Your task to perform on an android device: turn off data saver in the chrome app Image 0: 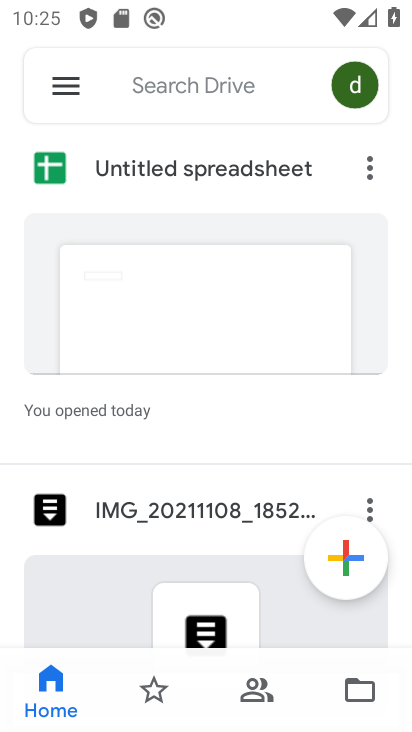
Step 0: press home button
Your task to perform on an android device: turn off data saver in the chrome app Image 1: 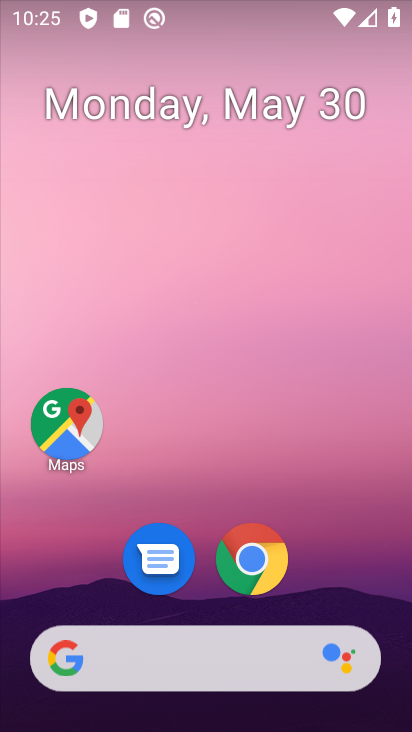
Step 1: click (267, 583)
Your task to perform on an android device: turn off data saver in the chrome app Image 2: 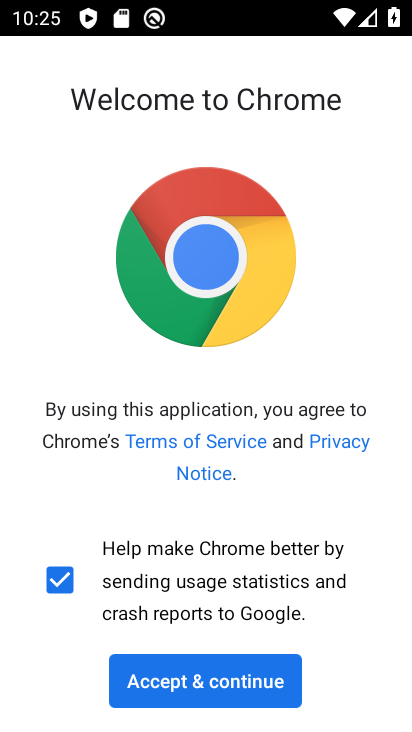
Step 2: click (241, 670)
Your task to perform on an android device: turn off data saver in the chrome app Image 3: 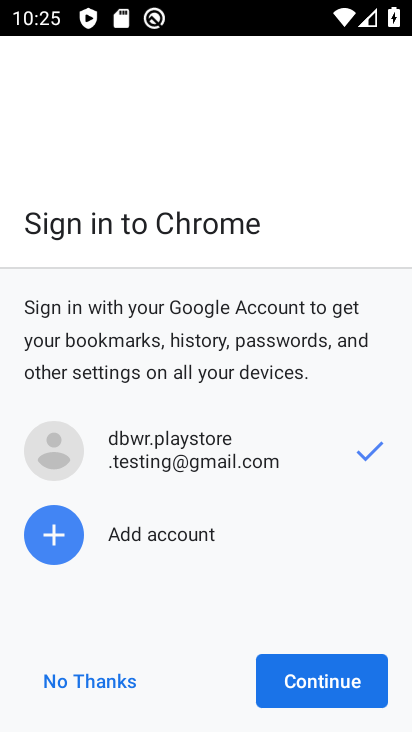
Step 3: click (330, 696)
Your task to perform on an android device: turn off data saver in the chrome app Image 4: 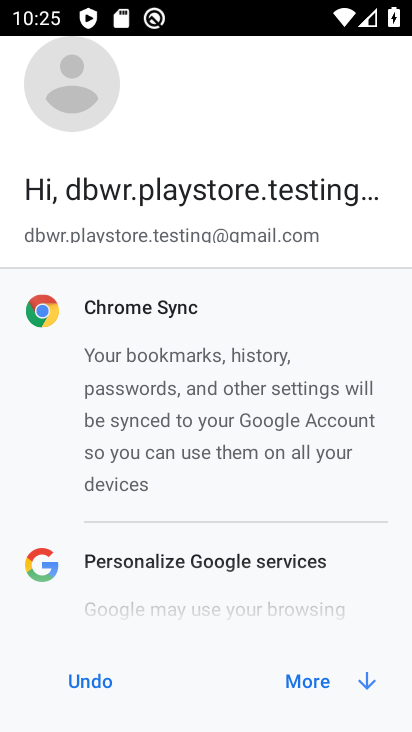
Step 4: click (330, 692)
Your task to perform on an android device: turn off data saver in the chrome app Image 5: 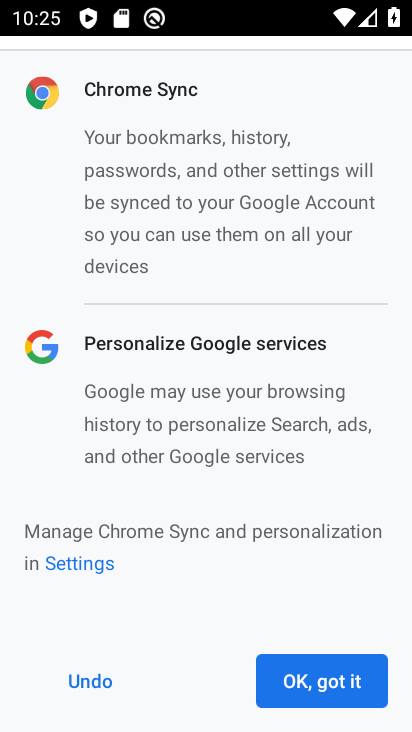
Step 5: click (350, 684)
Your task to perform on an android device: turn off data saver in the chrome app Image 6: 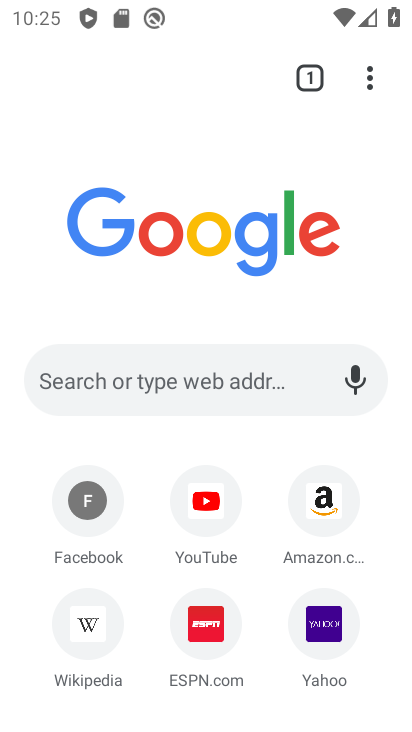
Step 6: click (379, 92)
Your task to perform on an android device: turn off data saver in the chrome app Image 7: 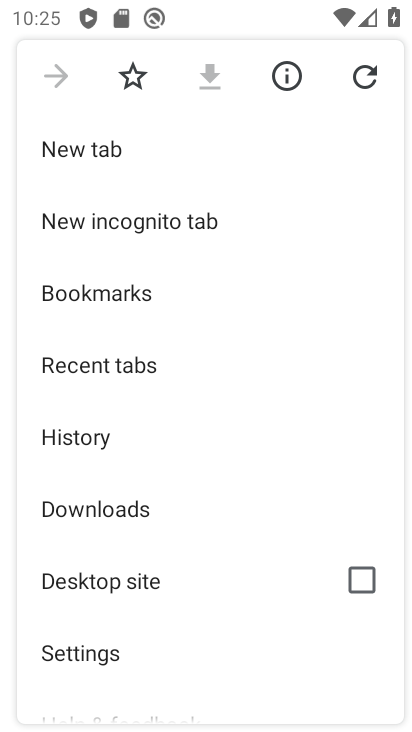
Step 7: click (95, 658)
Your task to perform on an android device: turn off data saver in the chrome app Image 8: 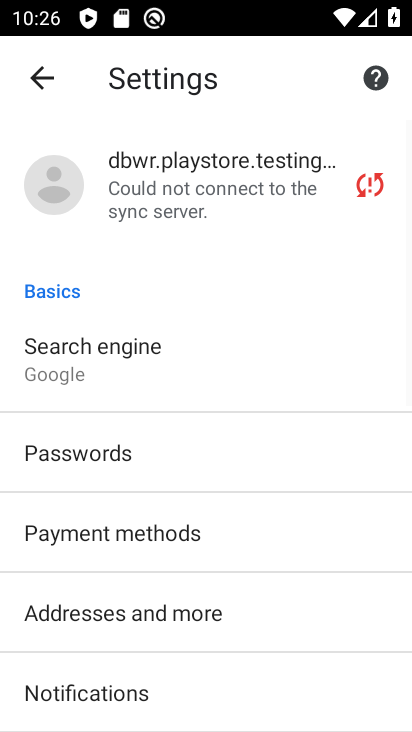
Step 8: drag from (135, 691) to (111, 184)
Your task to perform on an android device: turn off data saver in the chrome app Image 9: 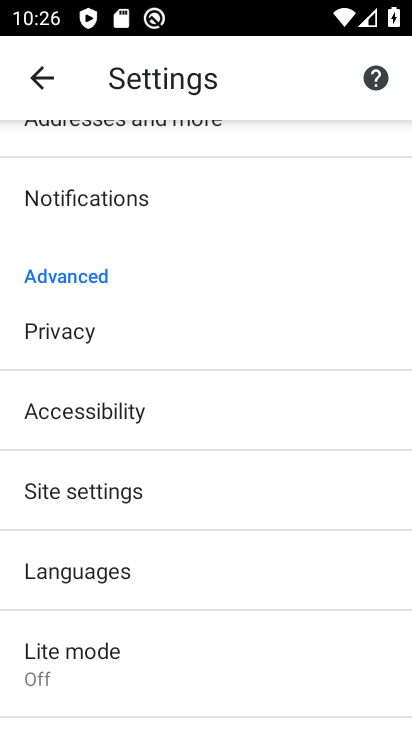
Step 9: click (108, 675)
Your task to perform on an android device: turn off data saver in the chrome app Image 10: 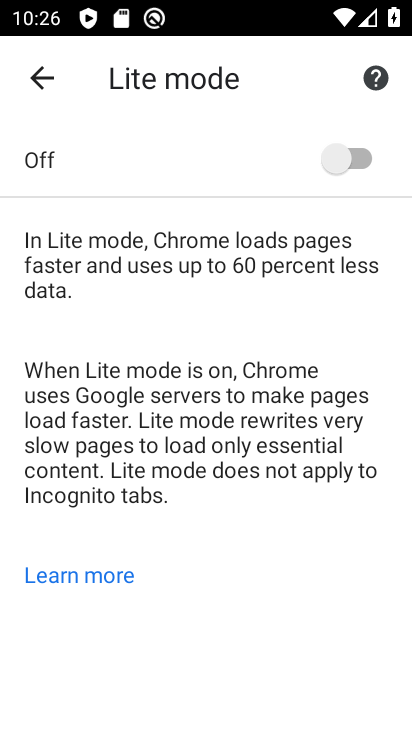
Step 10: task complete